Your task to perform on an android device: turn on airplane mode Image 0: 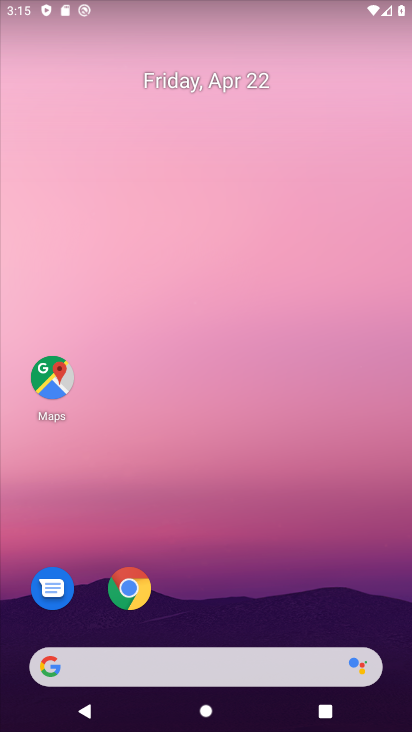
Step 0: drag from (196, 624) to (274, 145)
Your task to perform on an android device: turn on airplane mode Image 1: 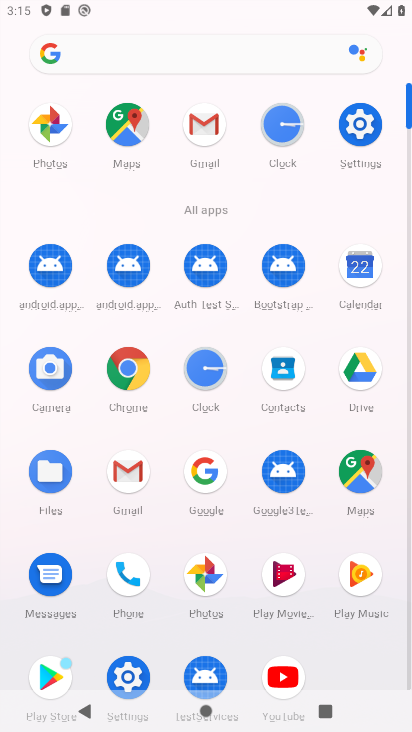
Step 1: click (350, 131)
Your task to perform on an android device: turn on airplane mode Image 2: 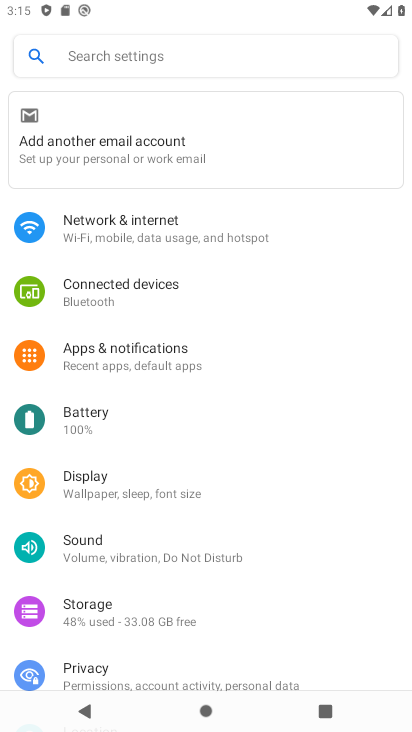
Step 2: click (173, 221)
Your task to perform on an android device: turn on airplane mode Image 3: 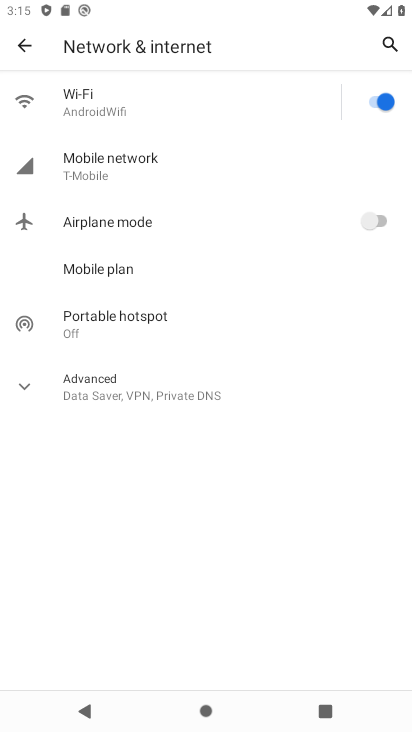
Step 3: click (380, 229)
Your task to perform on an android device: turn on airplane mode Image 4: 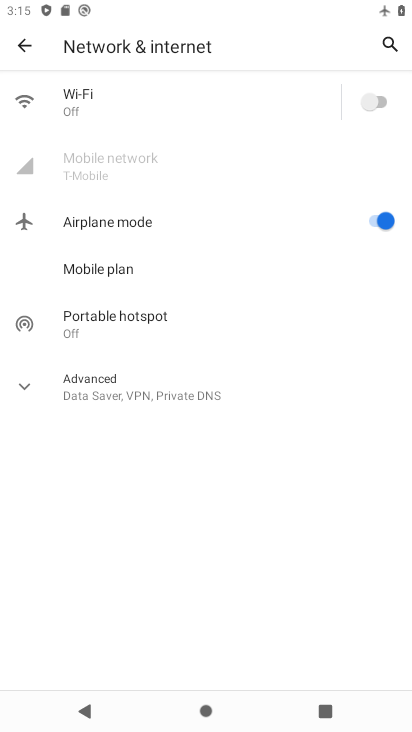
Step 4: task complete